Your task to perform on an android device: check storage Image 0: 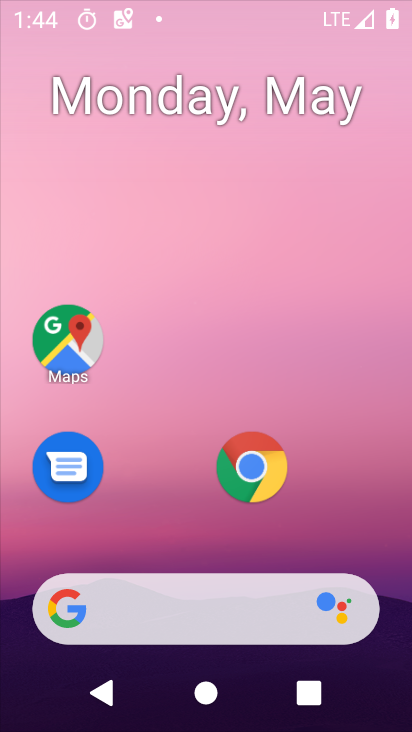
Step 0: drag from (214, 566) to (222, 166)
Your task to perform on an android device: check storage Image 1: 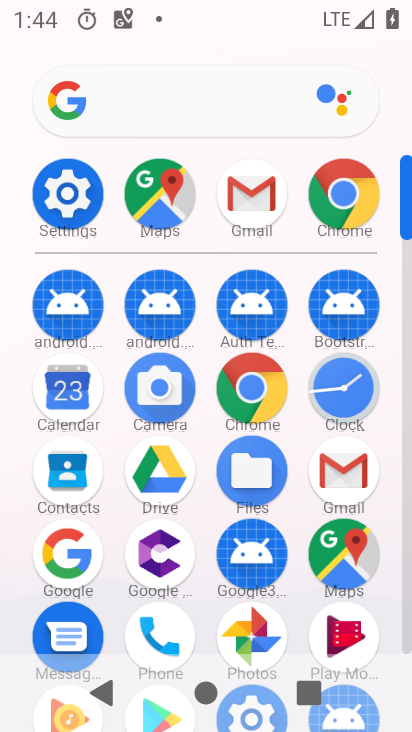
Step 1: click (62, 180)
Your task to perform on an android device: check storage Image 2: 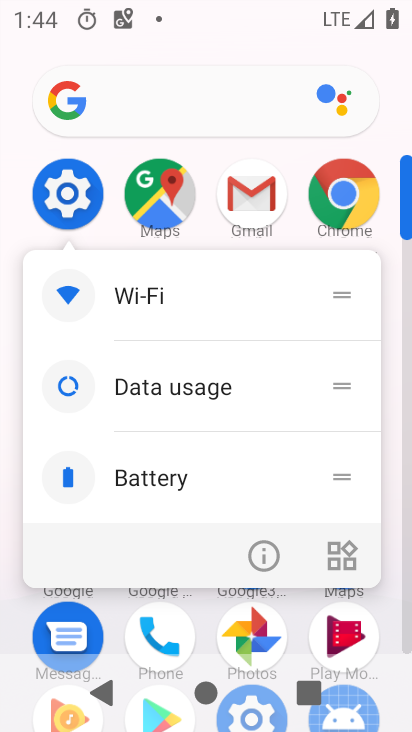
Step 2: click (275, 559)
Your task to perform on an android device: check storage Image 3: 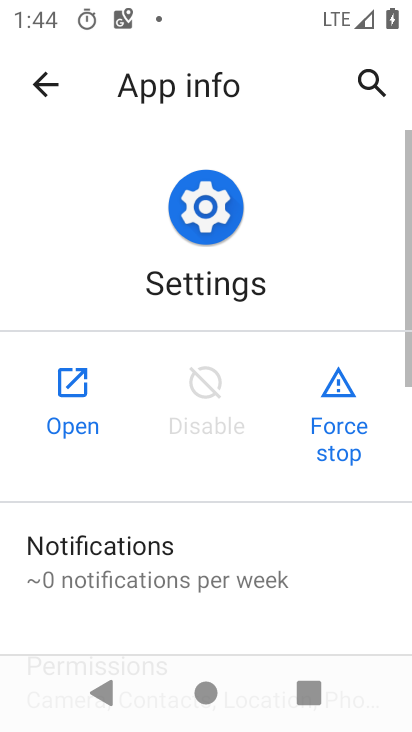
Step 3: click (71, 395)
Your task to perform on an android device: check storage Image 4: 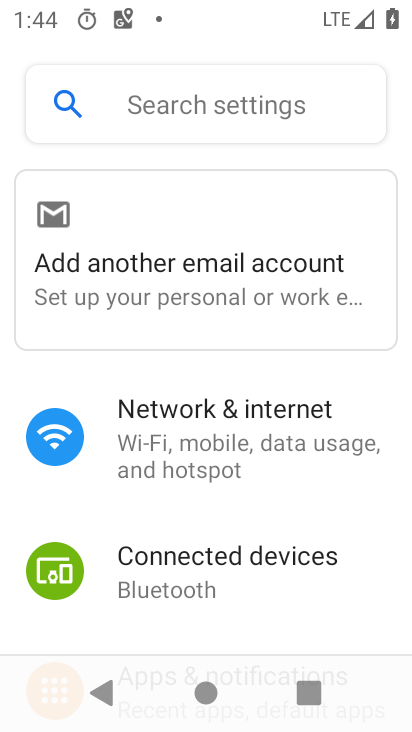
Step 4: drag from (197, 561) to (261, 193)
Your task to perform on an android device: check storage Image 5: 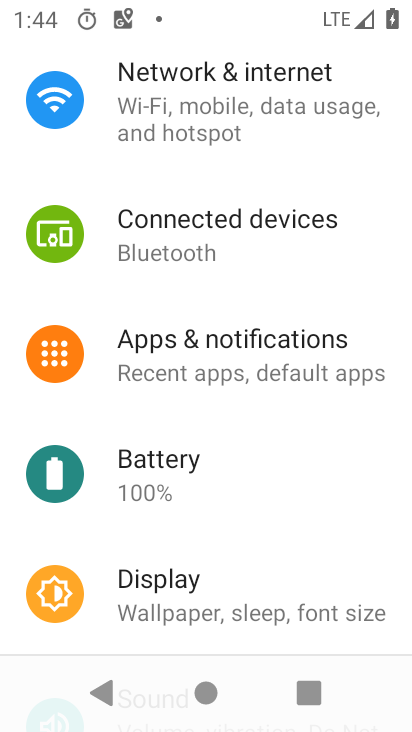
Step 5: drag from (245, 529) to (273, 213)
Your task to perform on an android device: check storage Image 6: 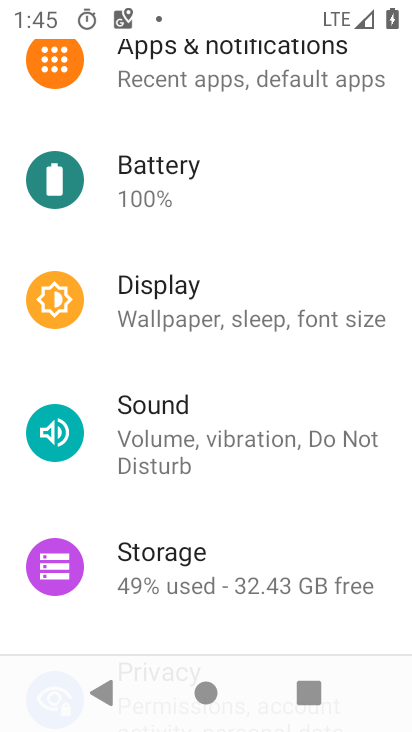
Step 6: drag from (200, 284) to (282, 158)
Your task to perform on an android device: check storage Image 7: 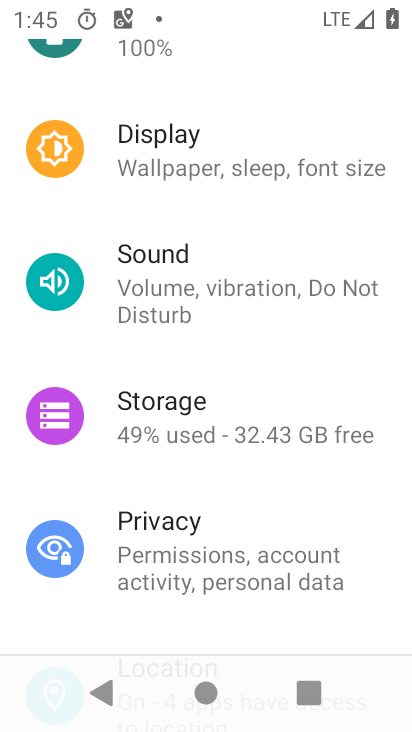
Step 7: click (181, 443)
Your task to perform on an android device: check storage Image 8: 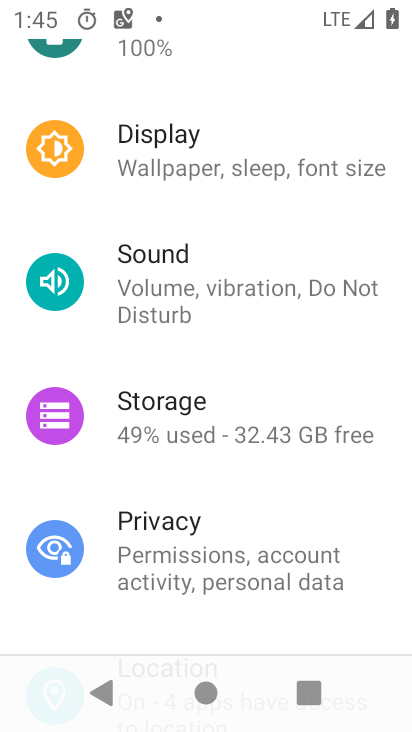
Step 8: click (181, 443)
Your task to perform on an android device: check storage Image 9: 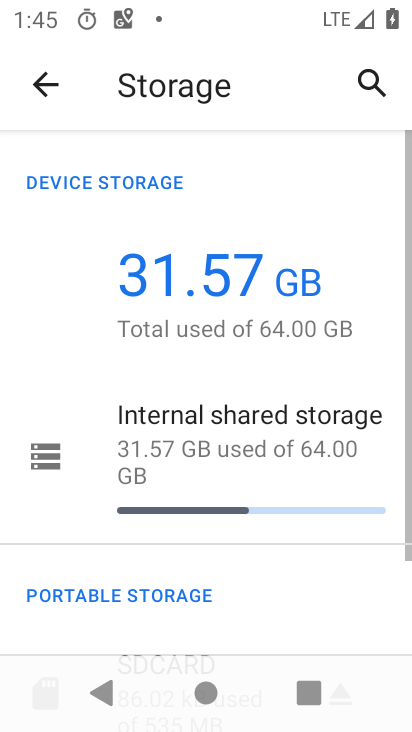
Step 9: task complete